Your task to perform on an android device: delete a single message in the gmail app Image 0: 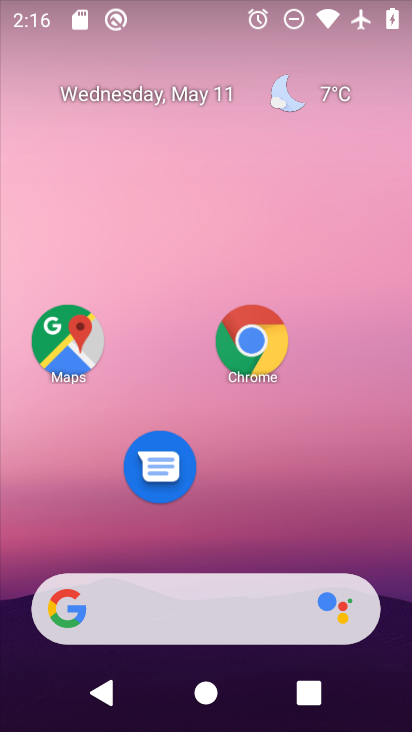
Step 0: drag from (146, 622) to (308, 93)
Your task to perform on an android device: delete a single message in the gmail app Image 1: 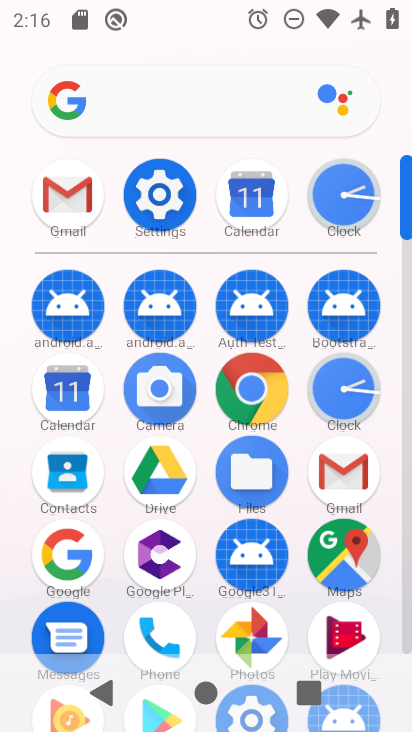
Step 1: click (69, 198)
Your task to perform on an android device: delete a single message in the gmail app Image 2: 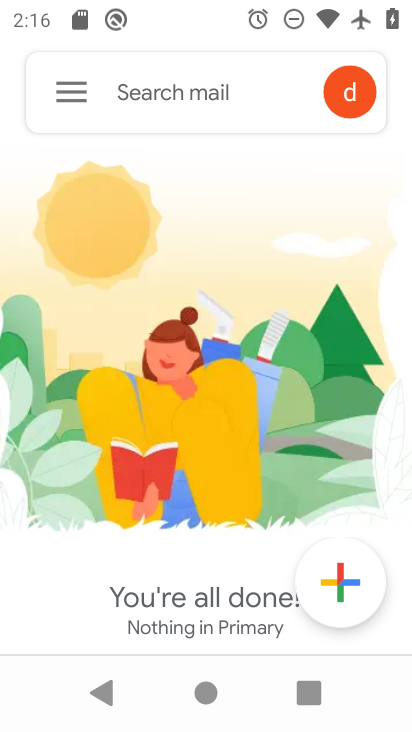
Step 2: task complete